Your task to perform on an android device: Open wifi settings Image 0: 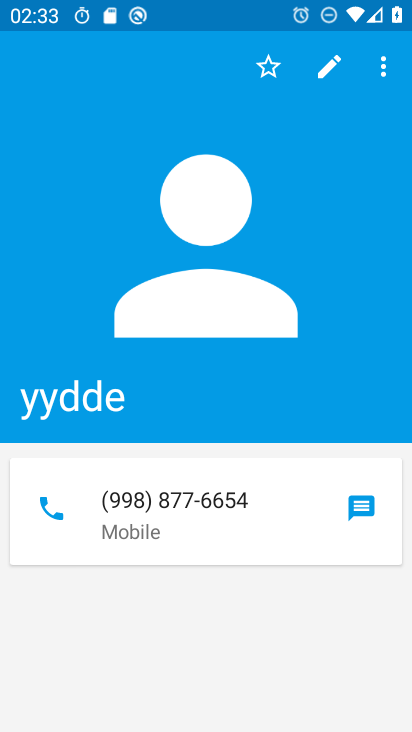
Step 0: press home button
Your task to perform on an android device: Open wifi settings Image 1: 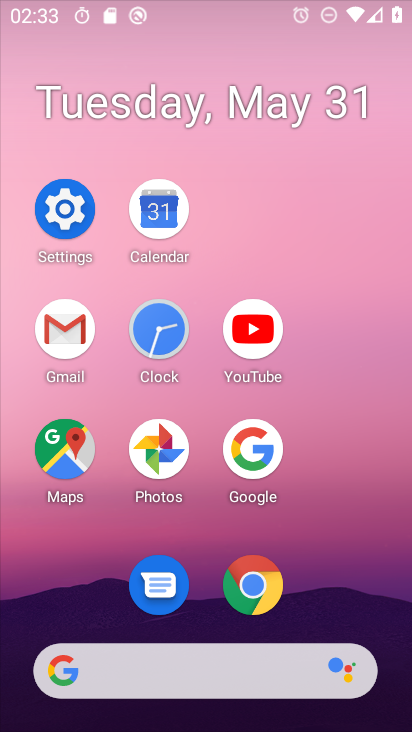
Step 1: click (61, 207)
Your task to perform on an android device: Open wifi settings Image 2: 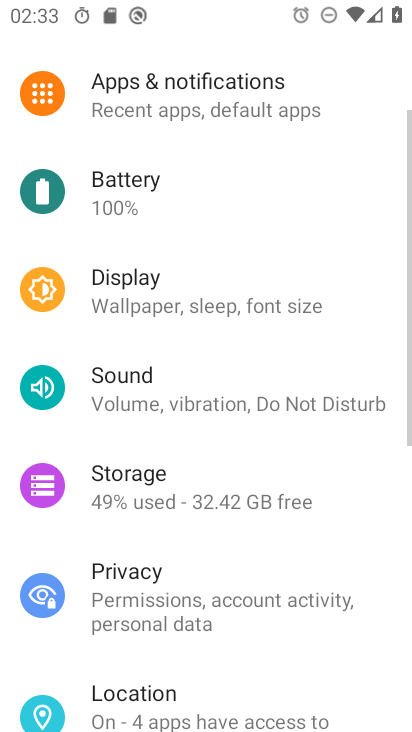
Step 2: drag from (241, 174) to (315, 663)
Your task to perform on an android device: Open wifi settings Image 3: 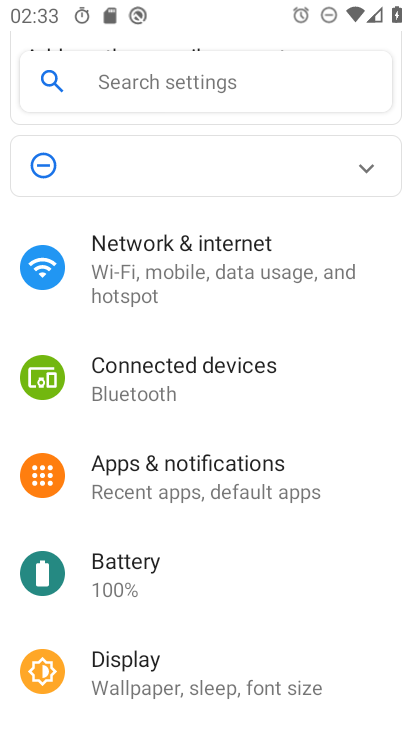
Step 3: click (245, 267)
Your task to perform on an android device: Open wifi settings Image 4: 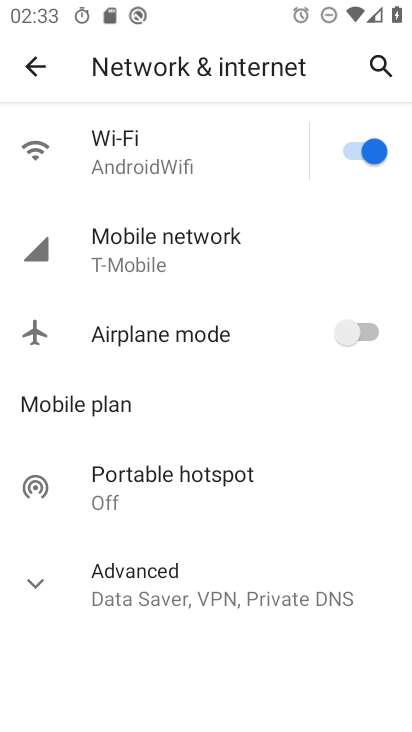
Step 4: click (186, 143)
Your task to perform on an android device: Open wifi settings Image 5: 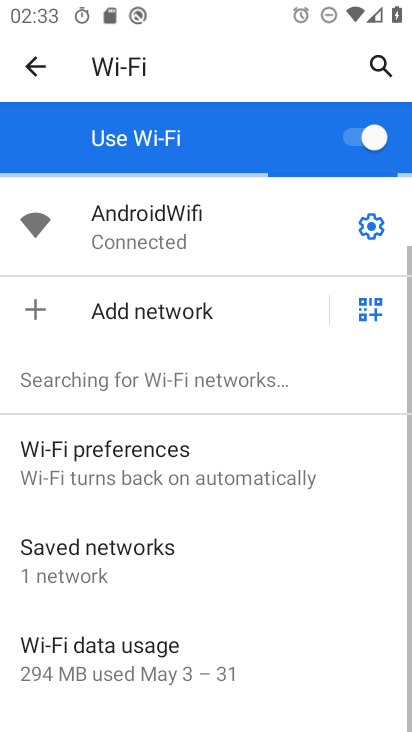
Step 5: click (379, 226)
Your task to perform on an android device: Open wifi settings Image 6: 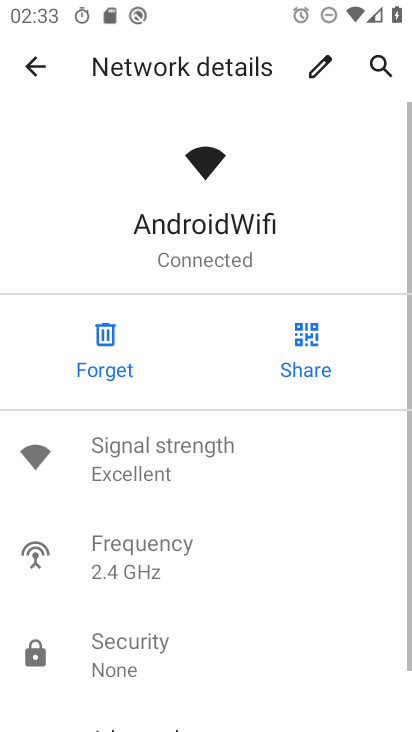
Step 6: task complete